Your task to perform on an android device: Open battery settings Image 0: 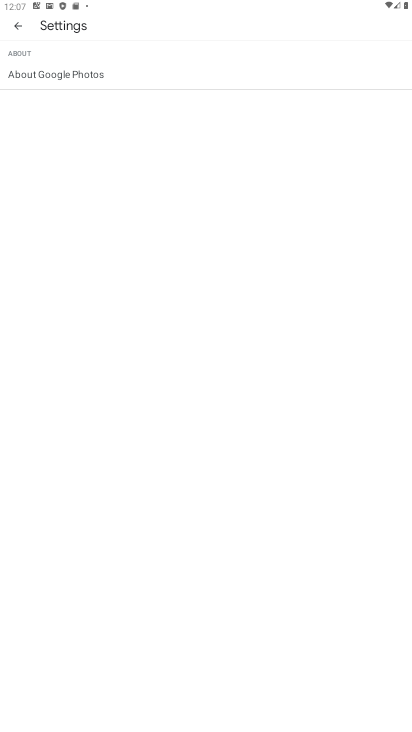
Step 0: press home button
Your task to perform on an android device: Open battery settings Image 1: 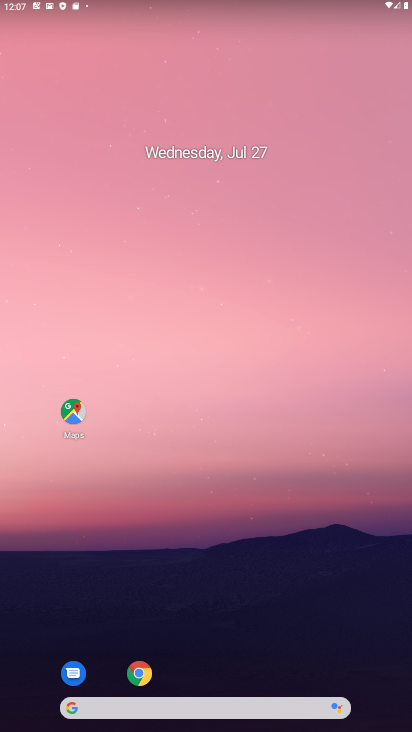
Step 1: drag from (230, 610) to (221, 238)
Your task to perform on an android device: Open battery settings Image 2: 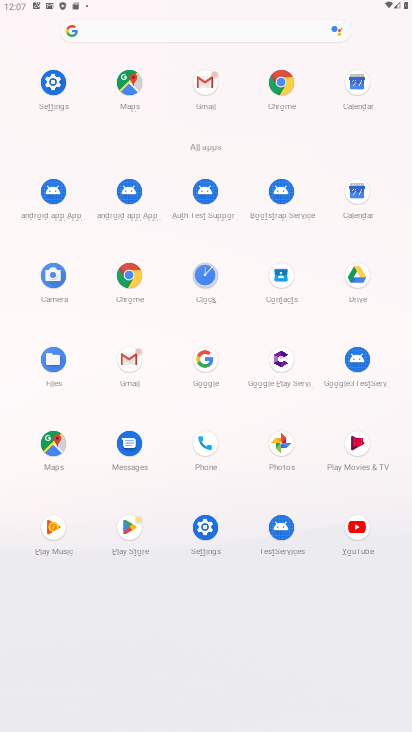
Step 2: click (53, 78)
Your task to perform on an android device: Open battery settings Image 3: 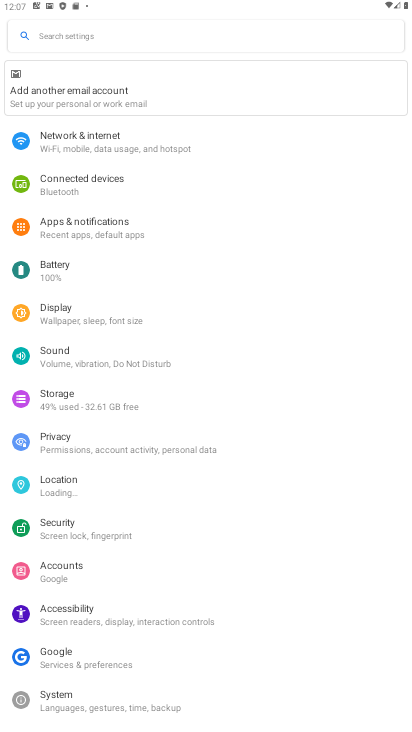
Step 3: click (67, 256)
Your task to perform on an android device: Open battery settings Image 4: 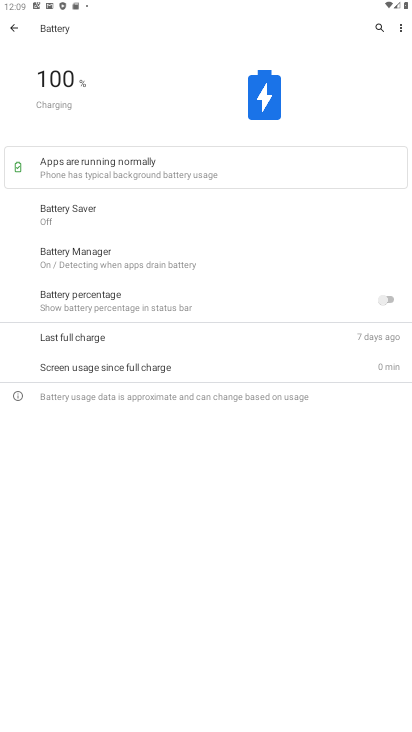
Step 4: task complete